Your task to perform on an android device: toggle javascript in the chrome app Image 0: 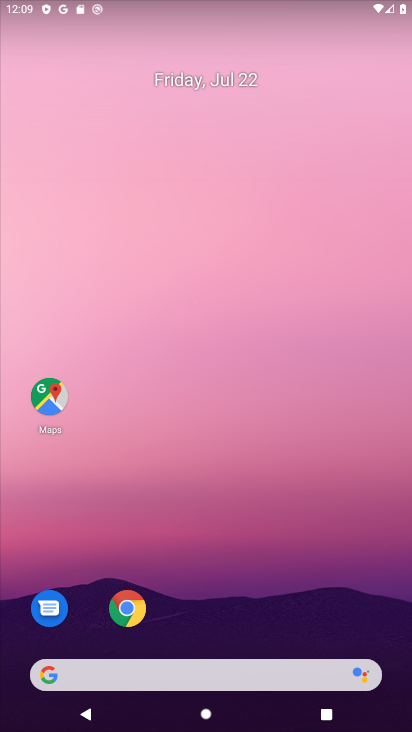
Step 0: click (123, 603)
Your task to perform on an android device: toggle javascript in the chrome app Image 1: 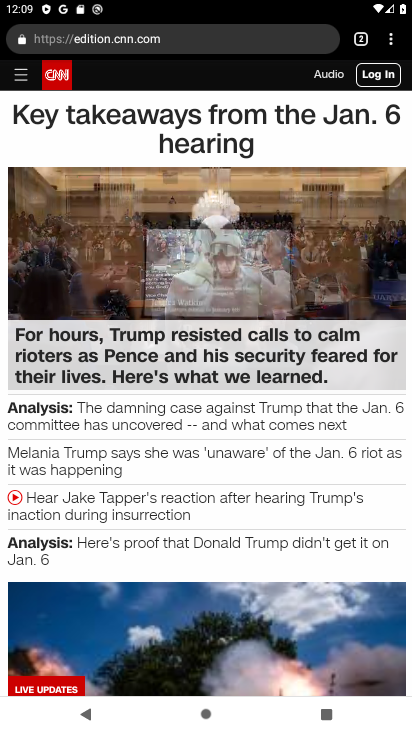
Step 1: click (391, 38)
Your task to perform on an android device: toggle javascript in the chrome app Image 2: 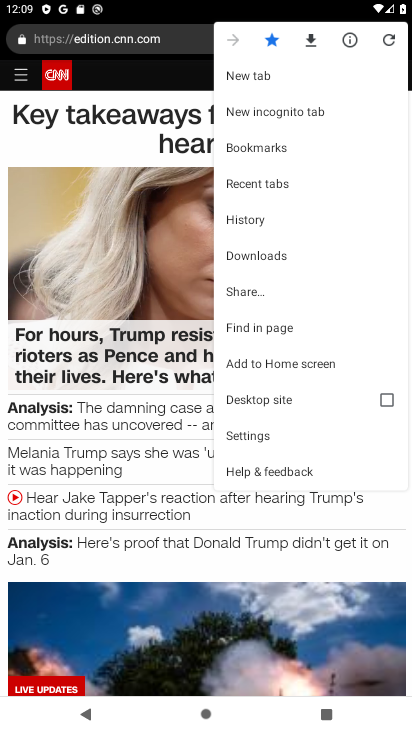
Step 2: click (279, 434)
Your task to perform on an android device: toggle javascript in the chrome app Image 3: 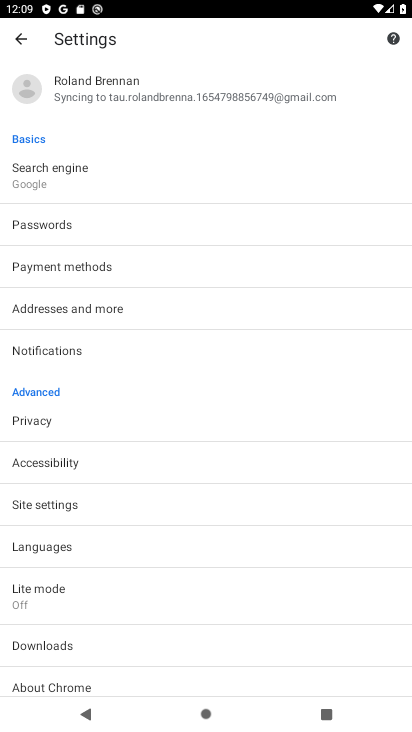
Step 3: click (94, 506)
Your task to perform on an android device: toggle javascript in the chrome app Image 4: 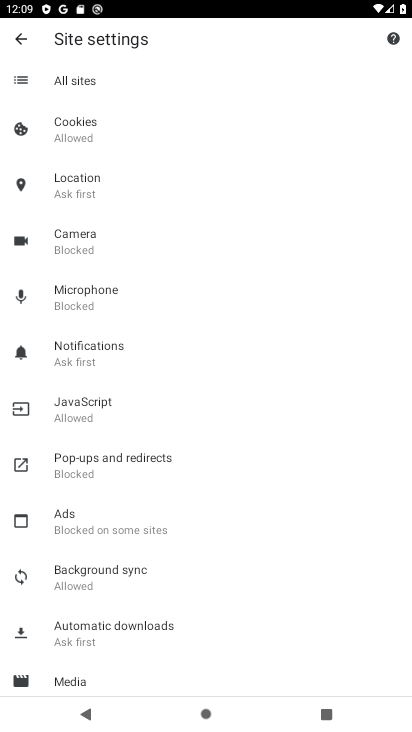
Step 4: click (129, 407)
Your task to perform on an android device: toggle javascript in the chrome app Image 5: 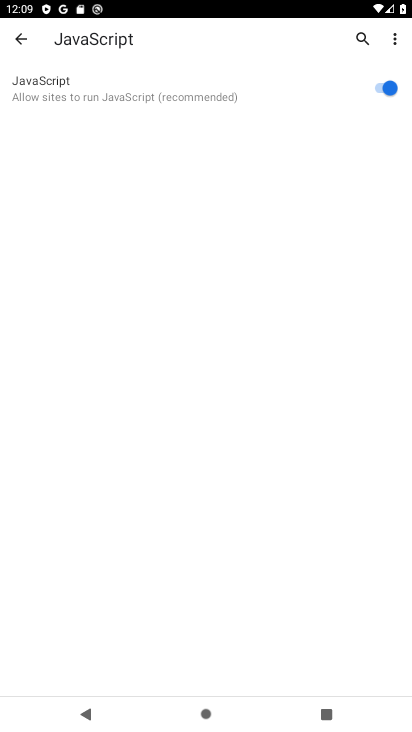
Step 5: click (381, 87)
Your task to perform on an android device: toggle javascript in the chrome app Image 6: 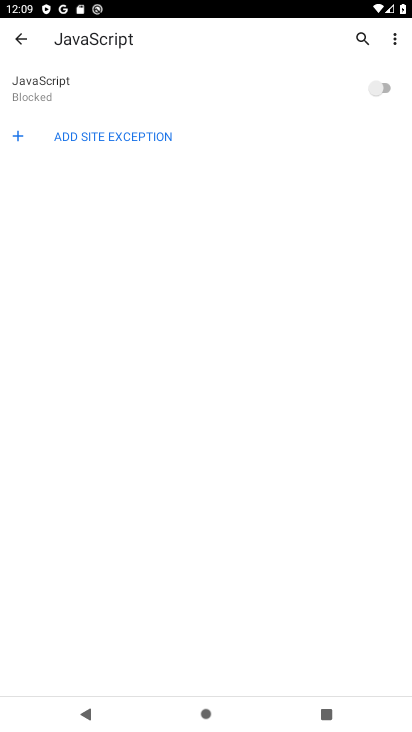
Step 6: task complete